Your task to perform on an android device: toggle show notifications on the lock screen Image 0: 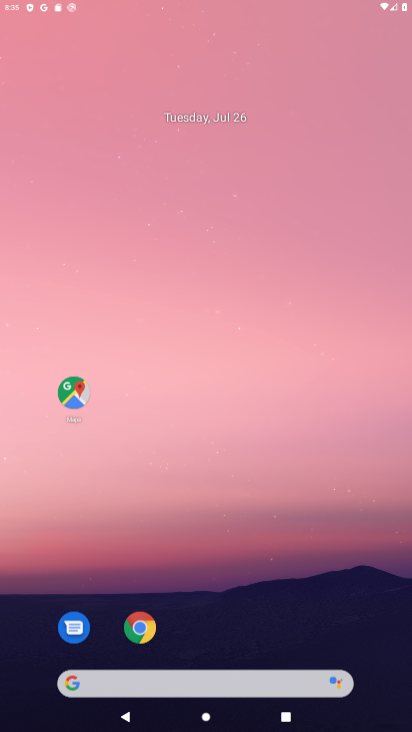
Step 0: press home button
Your task to perform on an android device: toggle show notifications on the lock screen Image 1: 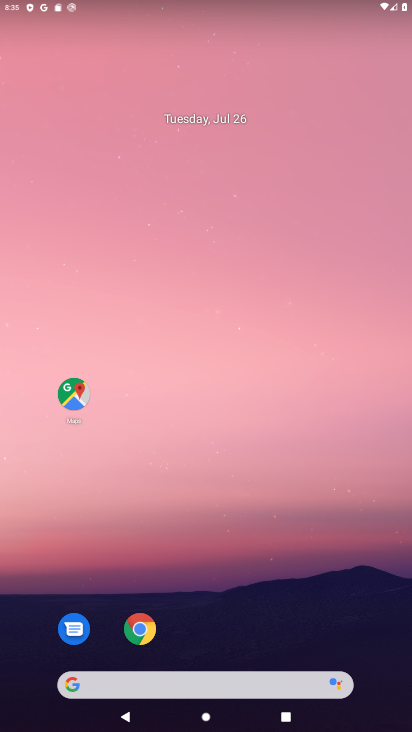
Step 1: drag from (336, 617) to (301, 95)
Your task to perform on an android device: toggle show notifications on the lock screen Image 2: 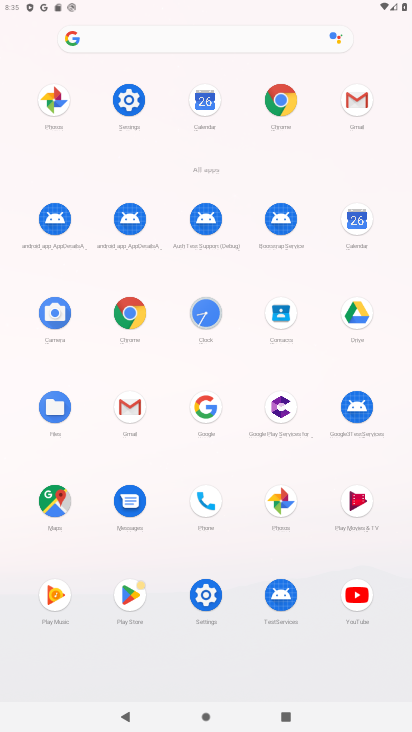
Step 2: click (212, 609)
Your task to perform on an android device: toggle show notifications on the lock screen Image 3: 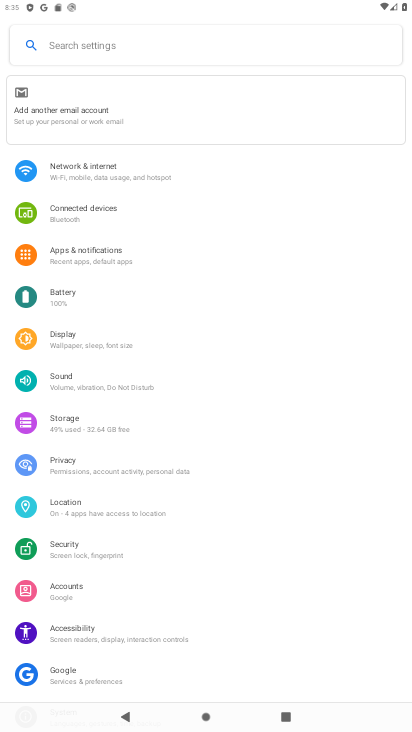
Step 3: click (130, 249)
Your task to perform on an android device: toggle show notifications on the lock screen Image 4: 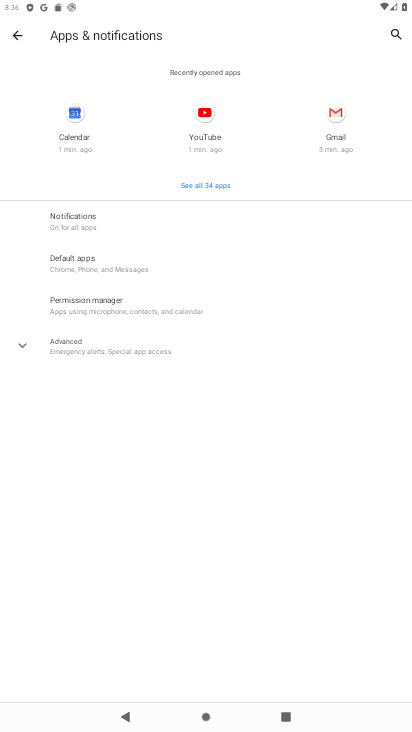
Step 4: click (78, 220)
Your task to perform on an android device: toggle show notifications on the lock screen Image 5: 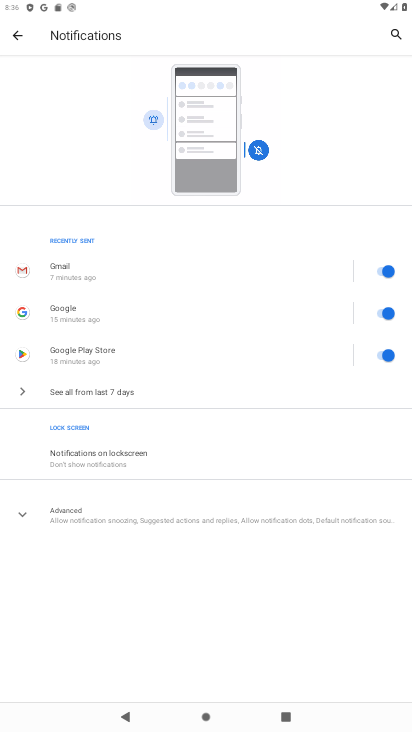
Step 5: click (108, 446)
Your task to perform on an android device: toggle show notifications on the lock screen Image 6: 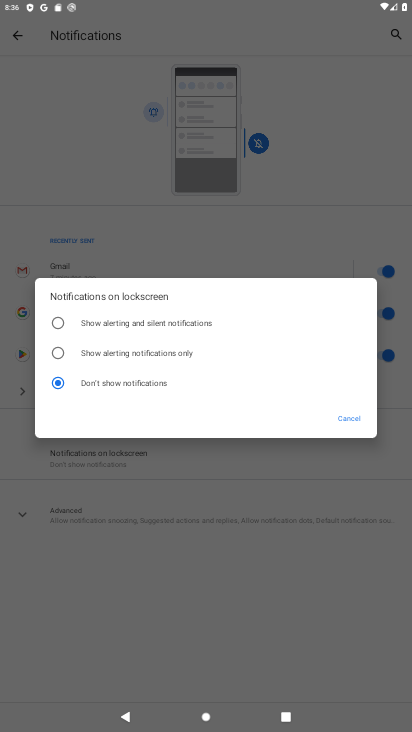
Step 6: click (120, 318)
Your task to perform on an android device: toggle show notifications on the lock screen Image 7: 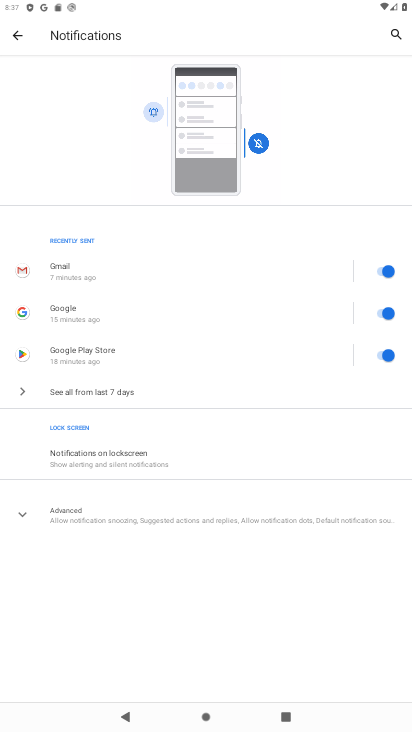
Step 7: task complete